Your task to perform on an android device: change notifications settings Image 0: 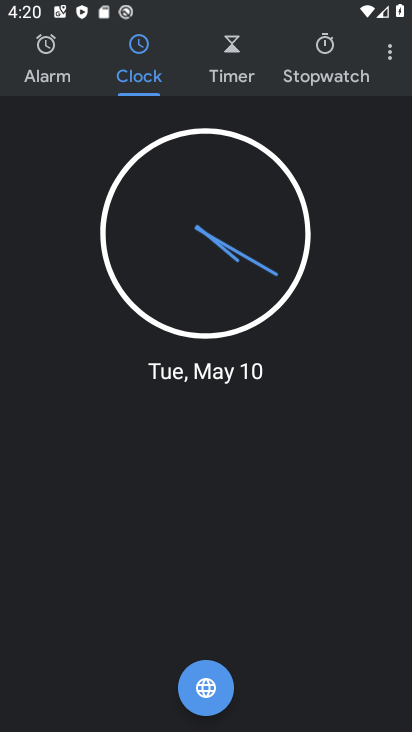
Step 0: press home button
Your task to perform on an android device: change notifications settings Image 1: 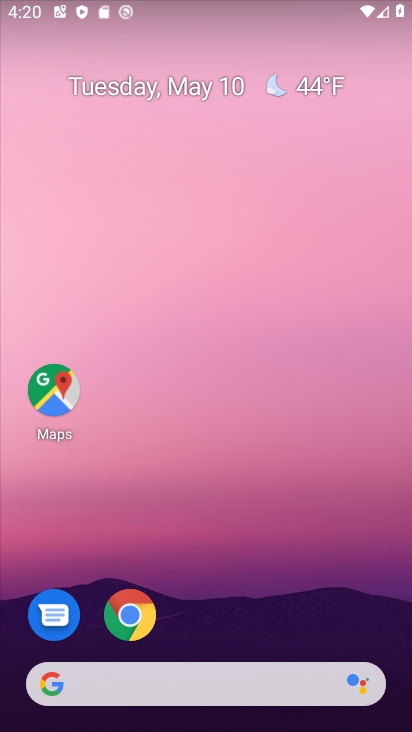
Step 1: drag from (217, 420) to (219, 127)
Your task to perform on an android device: change notifications settings Image 2: 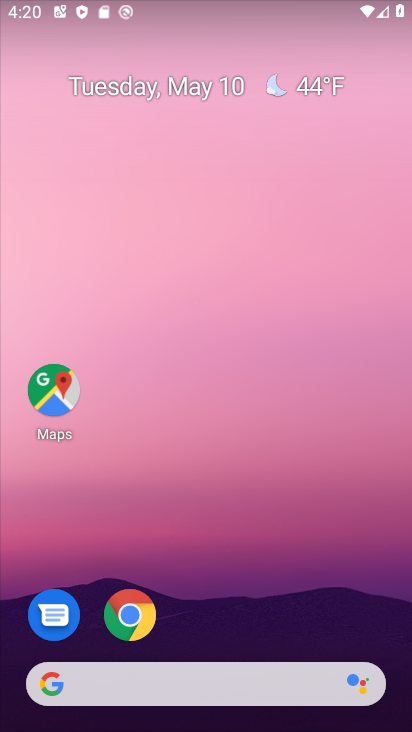
Step 2: drag from (222, 722) to (216, 119)
Your task to perform on an android device: change notifications settings Image 3: 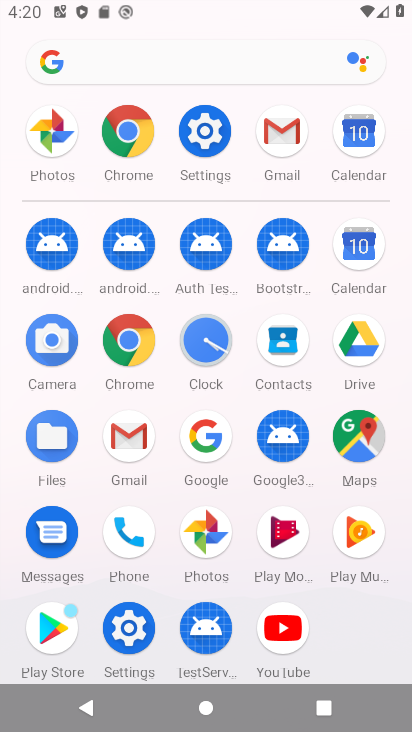
Step 3: click (202, 127)
Your task to perform on an android device: change notifications settings Image 4: 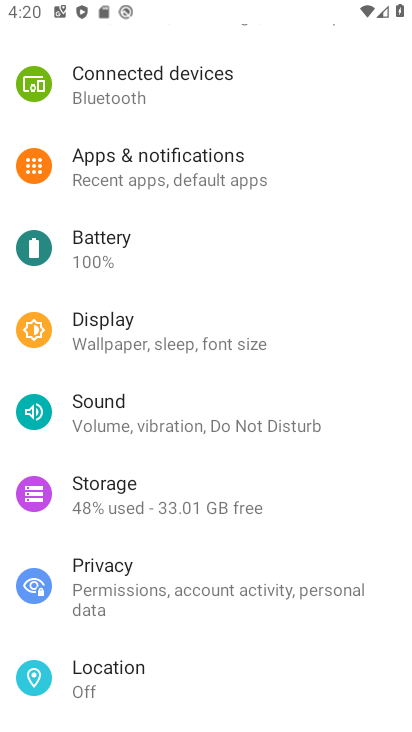
Step 4: click (187, 163)
Your task to perform on an android device: change notifications settings Image 5: 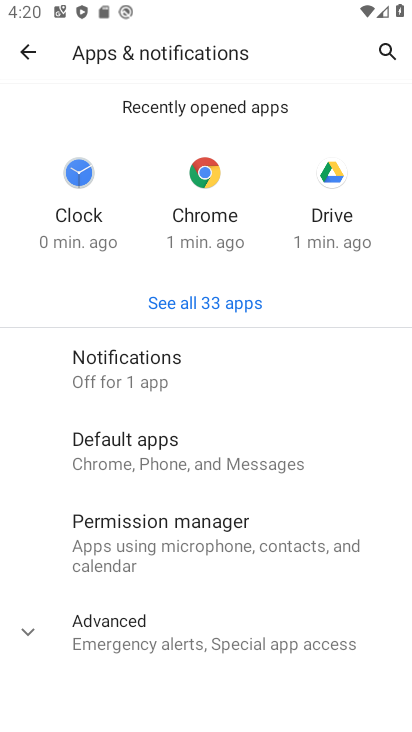
Step 5: click (119, 371)
Your task to perform on an android device: change notifications settings Image 6: 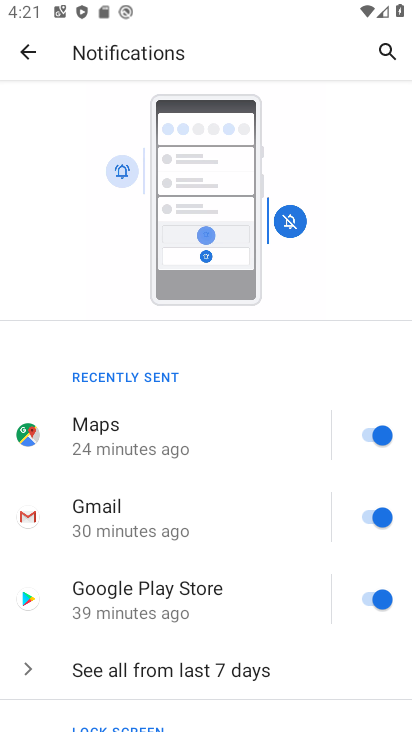
Step 6: drag from (220, 701) to (224, 299)
Your task to perform on an android device: change notifications settings Image 7: 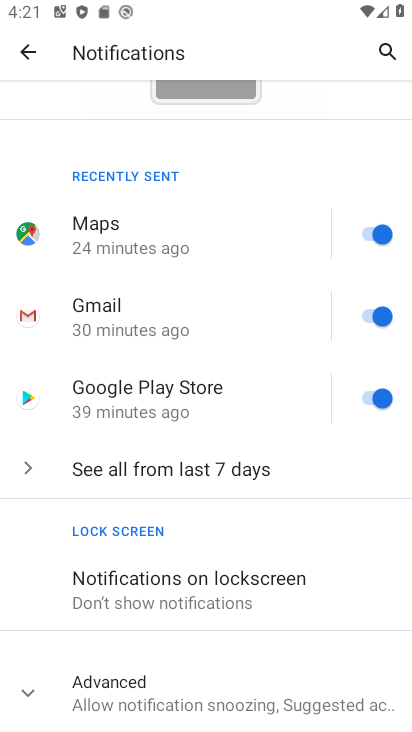
Step 7: click (178, 693)
Your task to perform on an android device: change notifications settings Image 8: 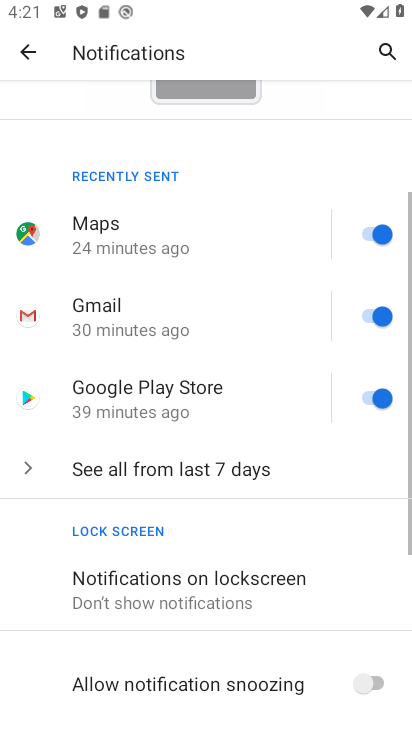
Step 8: drag from (201, 651) to (210, 333)
Your task to perform on an android device: change notifications settings Image 9: 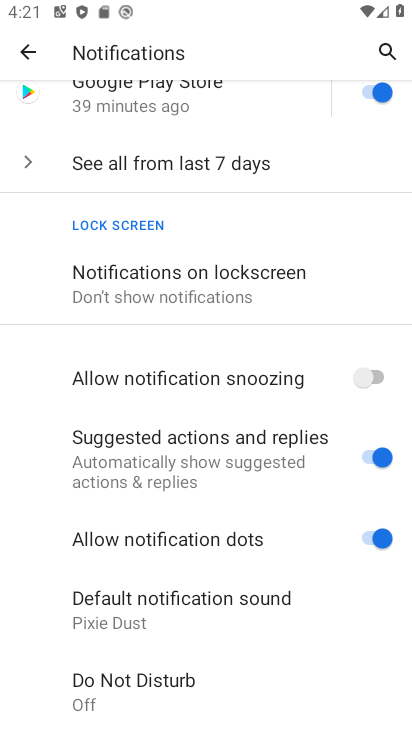
Step 9: click (363, 451)
Your task to perform on an android device: change notifications settings Image 10: 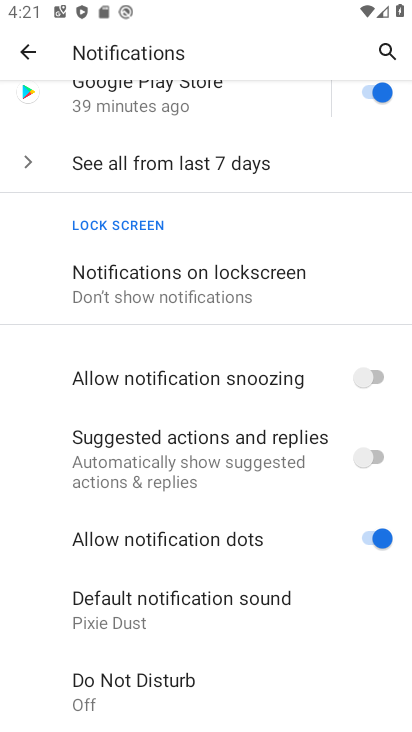
Step 10: task complete